Your task to perform on an android device: Open display settings Image 0: 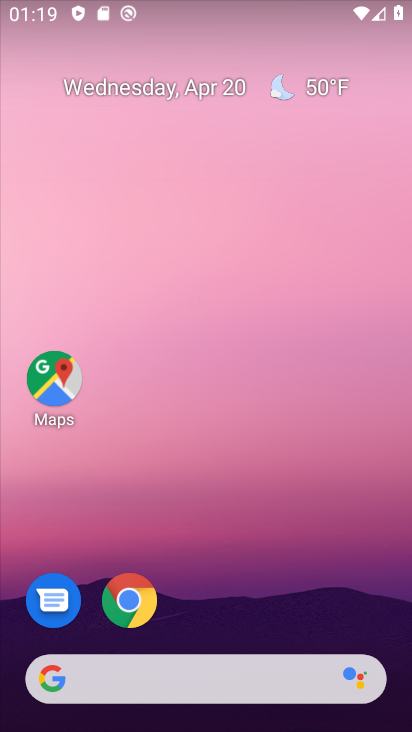
Step 0: drag from (195, 626) to (194, 108)
Your task to perform on an android device: Open display settings Image 1: 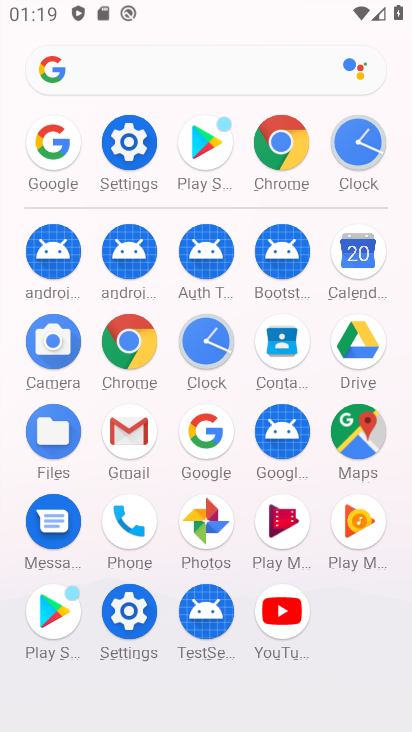
Step 1: click (121, 121)
Your task to perform on an android device: Open display settings Image 2: 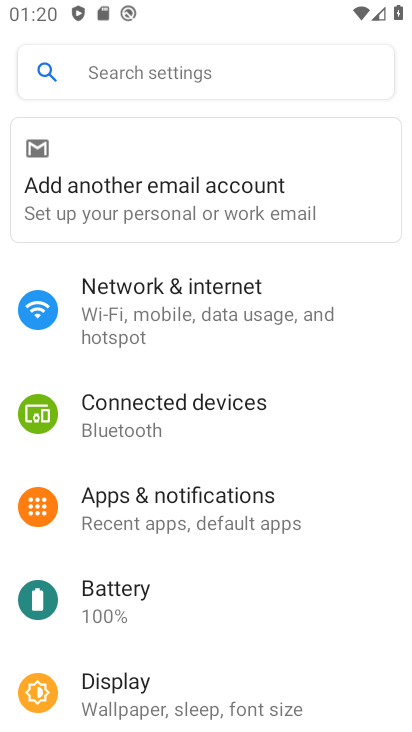
Step 2: drag from (221, 539) to (165, 128)
Your task to perform on an android device: Open display settings Image 3: 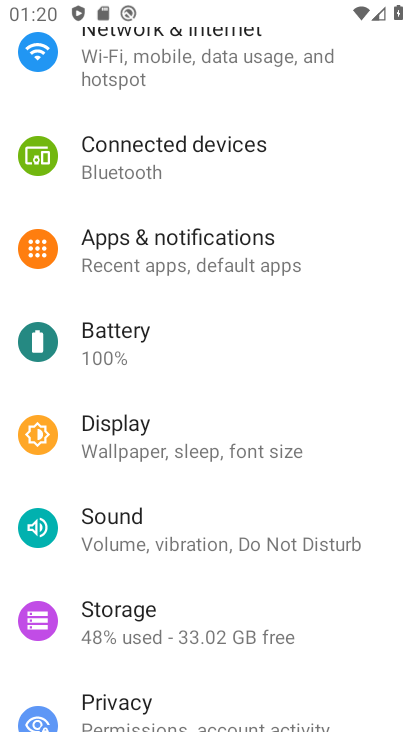
Step 3: click (181, 447)
Your task to perform on an android device: Open display settings Image 4: 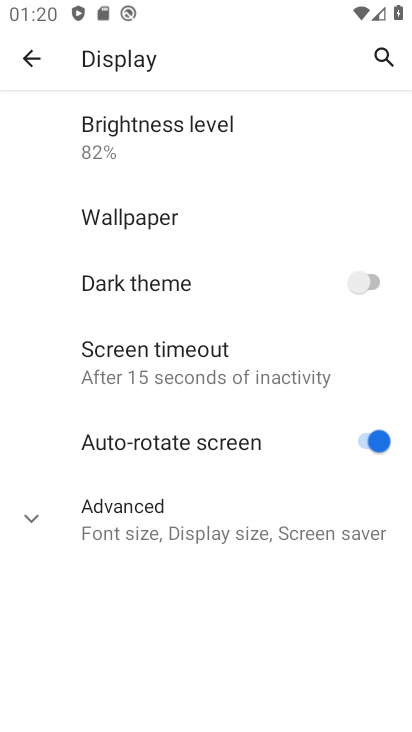
Step 4: task complete